Your task to perform on an android device: change alarm snooze length Image 0: 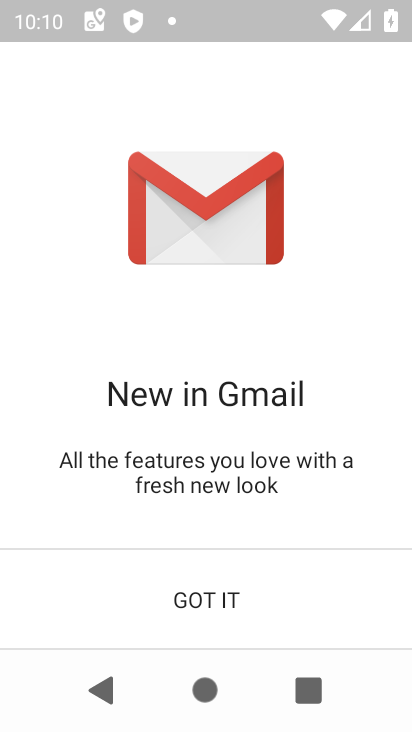
Step 0: press home button
Your task to perform on an android device: change alarm snooze length Image 1: 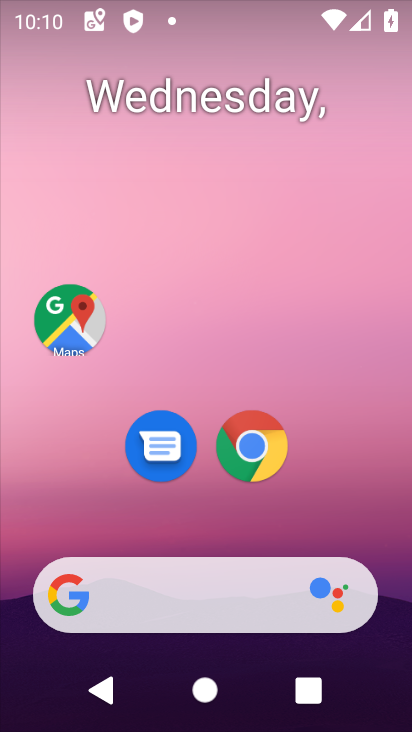
Step 1: drag from (222, 547) to (220, 102)
Your task to perform on an android device: change alarm snooze length Image 2: 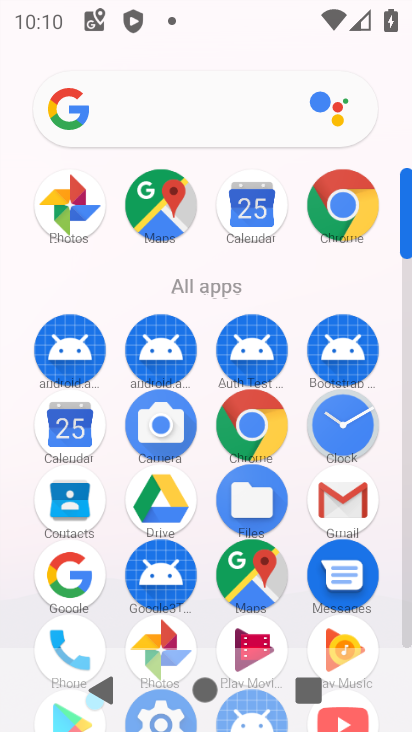
Step 2: click (332, 436)
Your task to perform on an android device: change alarm snooze length Image 3: 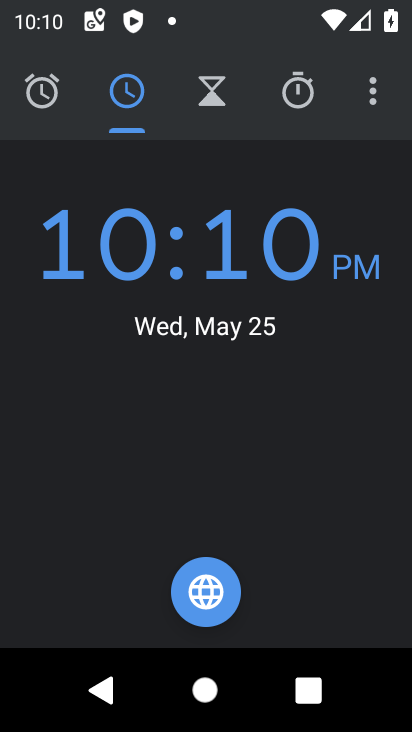
Step 3: click (369, 110)
Your task to perform on an android device: change alarm snooze length Image 4: 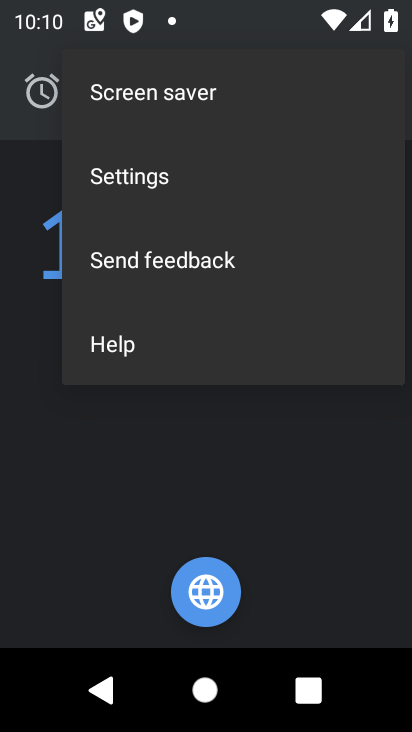
Step 4: click (201, 173)
Your task to perform on an android device: change alarm snooze length Image 5: 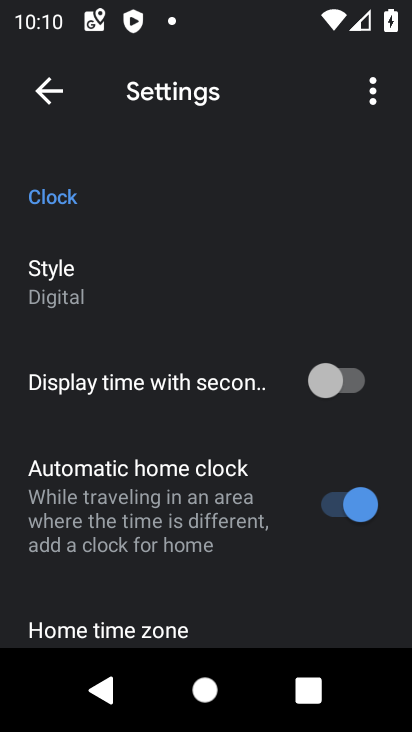
Step 5: drag from (209, 563) to (236, 203)
Your task to perform on an android device: change alarm snooze length Image 6: 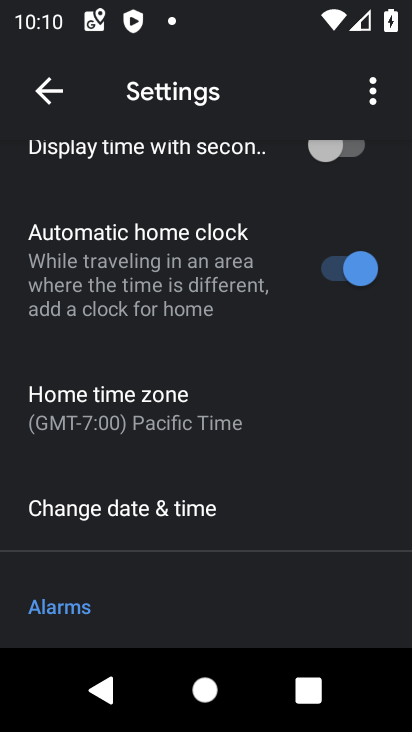
Step 6: drag from (223, 497) to (253, 277)
Your task to perform on an android device: change alarm snooze length Image 7: 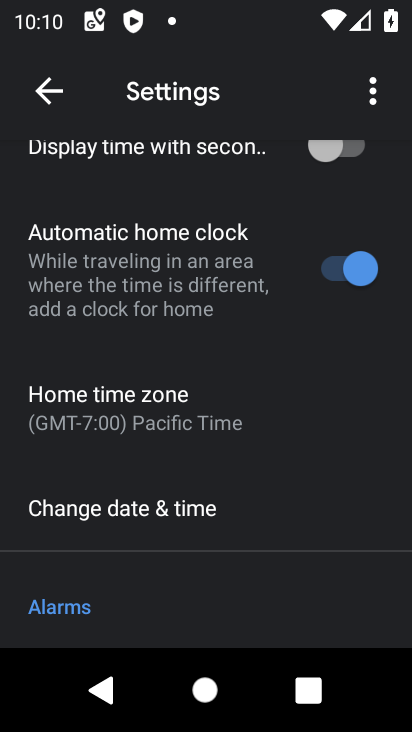
Step 7: drag from (137, 546) to (164, 225)
Your task to perform on an android device: change alarm snooze length Image 8: 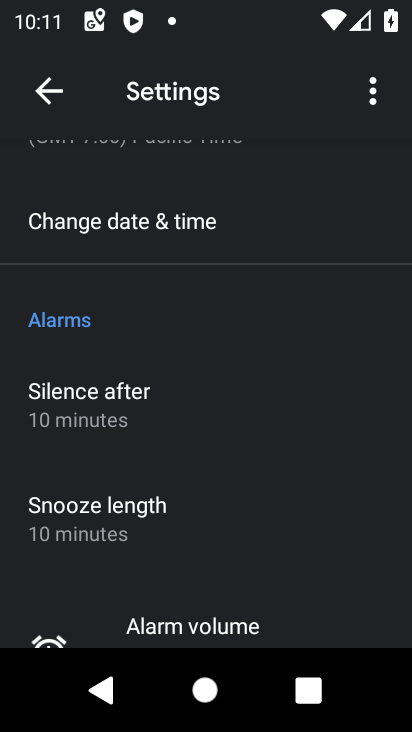
Step 8: click (73, 536)
Your task to perform on an android device: change alarm snooze length Image 9: 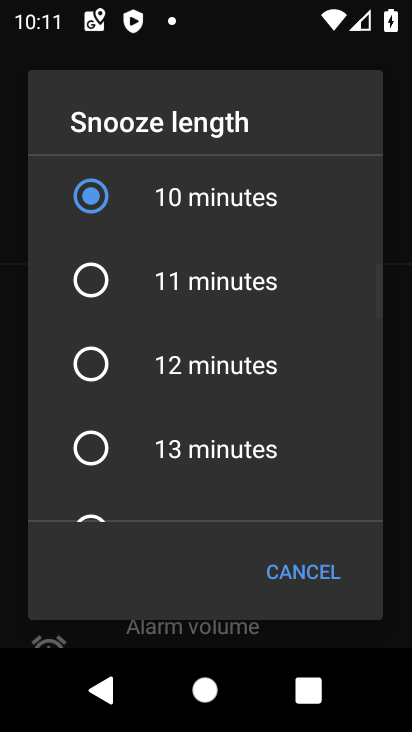
Step 9: click (91, 301)
Your task to perform on an android device: change alarm snooze length Image 10: 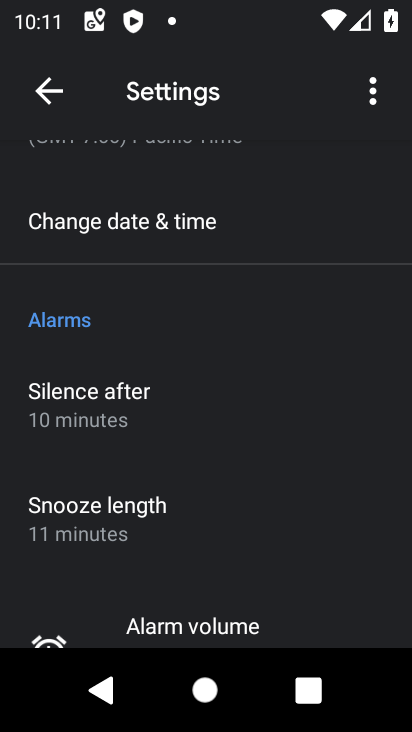
Step 10: task complete